Your task to perform on an android device: turn off smart reply in the gmail app Image 0: 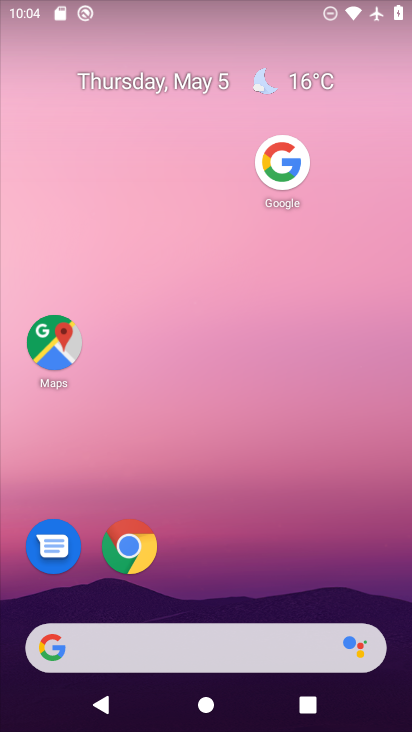
Step 0: drag from (186, 645) to (373, 57)
Your task to perform on an android device: turn off smart reply in the gmail app Image 1: 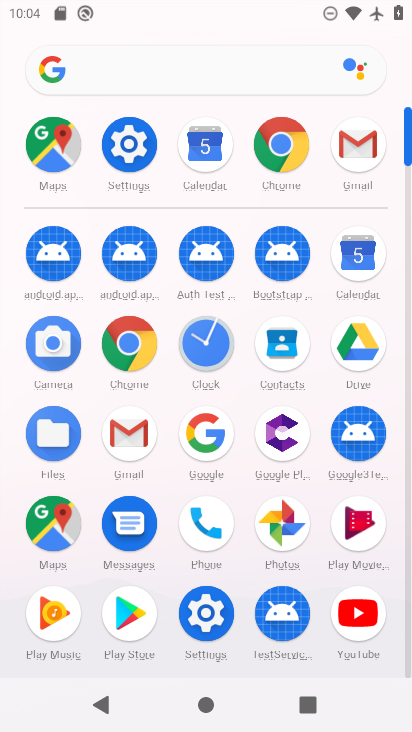
Step 1: click (364, 144)
Your task to perform on an android device: turn off smart reply in the gmail app Image 2: 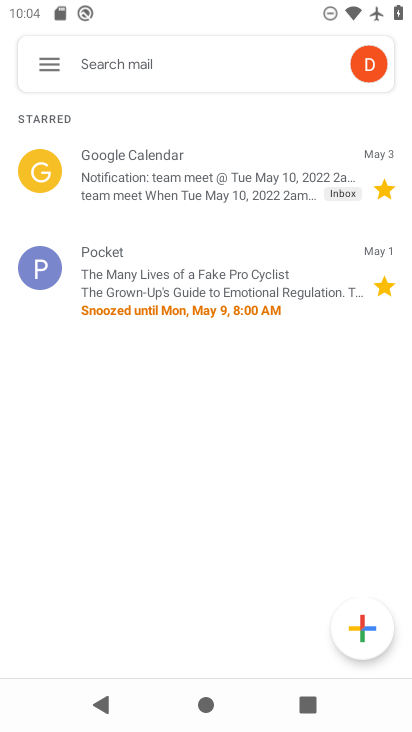
Step 2: click (50, 64)
Your task to perform on an android device: turn off smart reply in the gmail app Image 3: 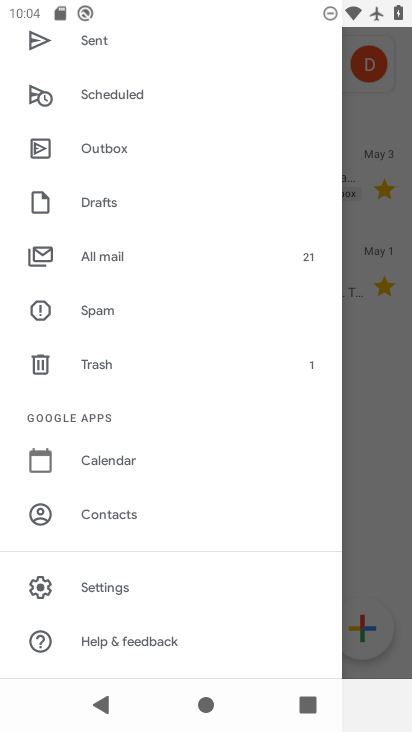
Step 3: click (108, 588)
Your task to perform on an android device: turn off smart reply in the gmail app Image 4: 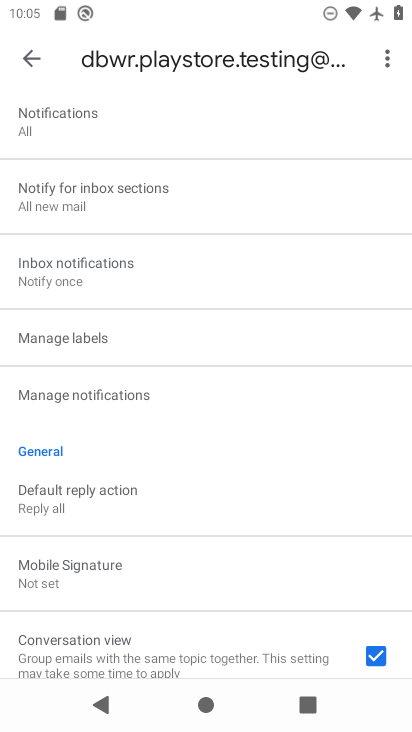
Step 4: drag from (161, 543) to (304, 204)
Your task to perform on an android device: turn off smart reply in the gmail app Image 5: 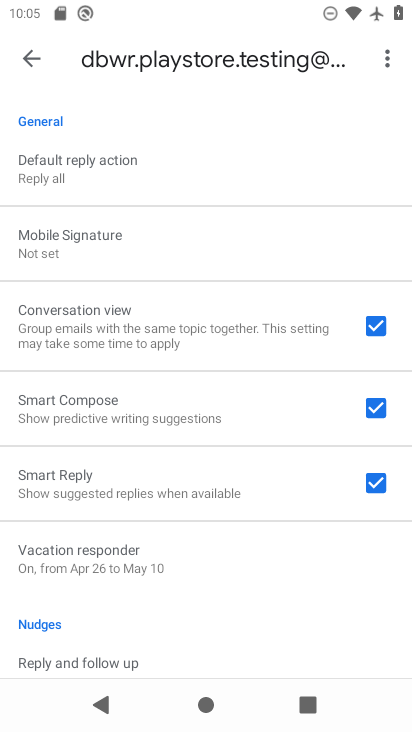
Step 5: click (377, 485)
Your task to perform on an android device: turn off smart reply in the gmail app Image 6: 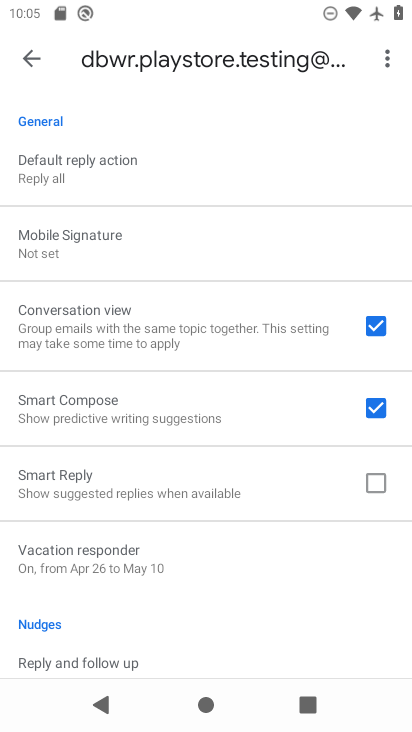
Step 6: task complete